Your task to perform on an android device: turn pop-ups off in chrome Image 0: 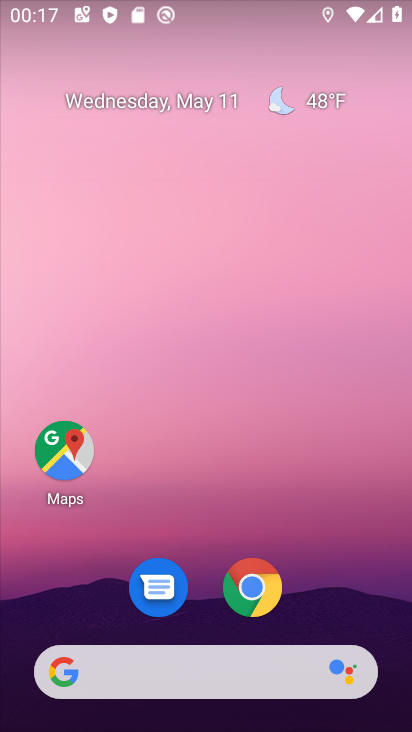
Step 0: click (279, 596)
Your task to perform on an android device: turn pop-ups off in chrome Image 1: 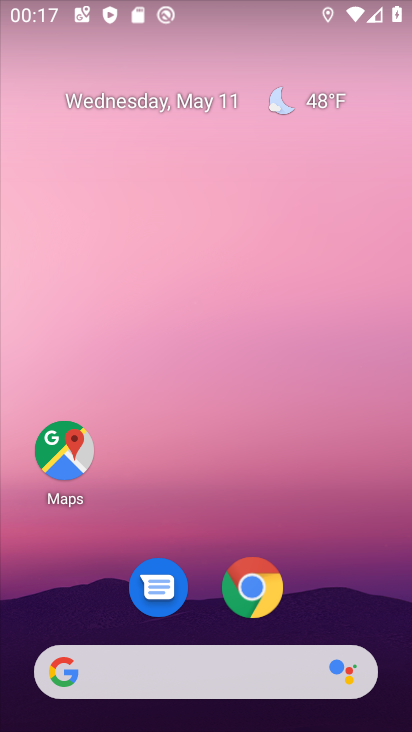
Step 1: click (279, 596)
Your task to perform on an android device: turn pop-ups off in chrome Image 2: 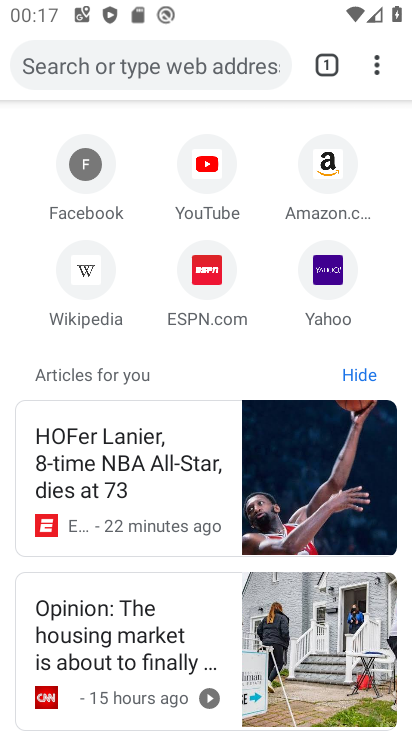
Step 2: click (362, 80)
Your task to perform on an android device: turn pop-ups off in chrome Image 3: 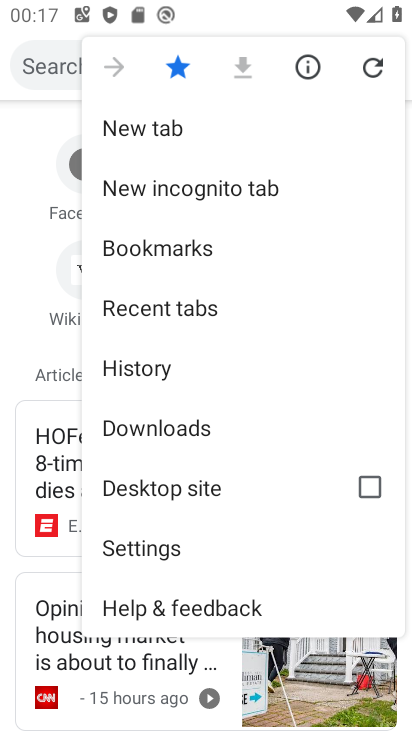
Step 3: click (201, 535)
Your task to perform on an android device: turn pop-ups off in chrome Image 4: 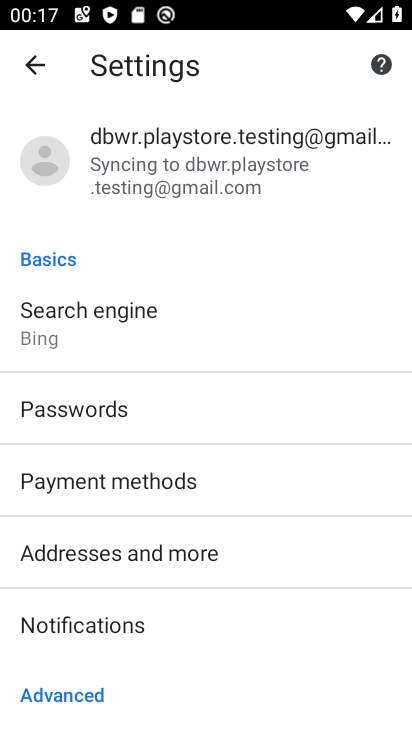
Step 4: drag from (266, 558) to (198, 273)
Your task to perform on an android device: turn pop-ups off in chrome Image 5: 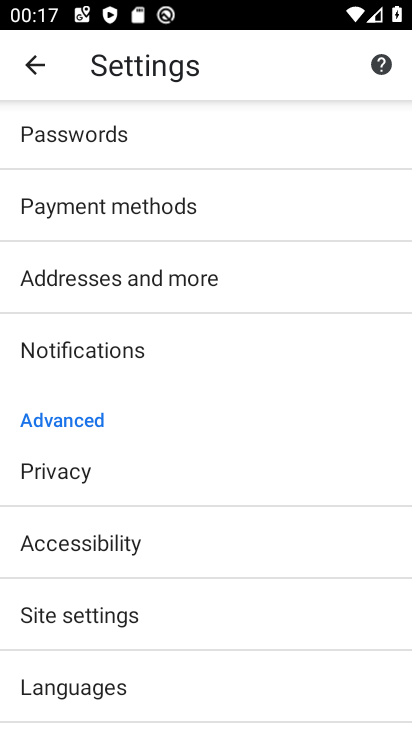
Step 5: click (148, 619)
Your task to perform on an android device: turn pop-ups off in chrome Image 6: 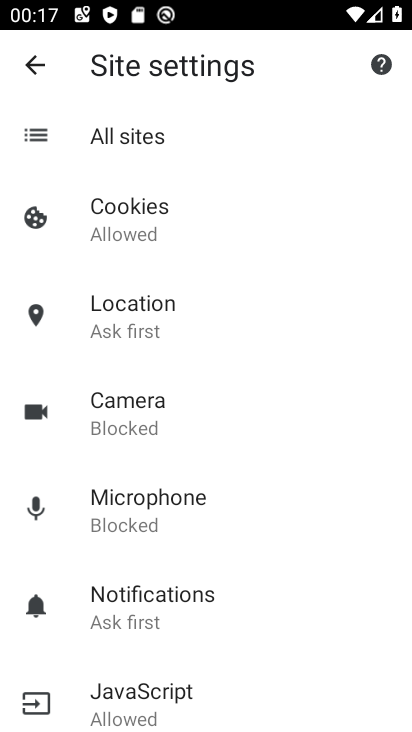
Step 6: drag from (235, 626) to (230, 197)
Your task to perform on an android device: turn pop-ups off in chrome Image 7: 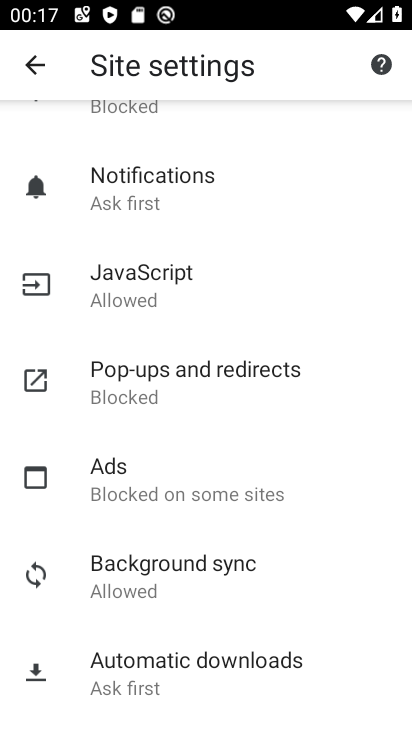
Step 7: click (169, 390)
Your task to perform on an android device: turn pop-ups off in chrome Image 8: 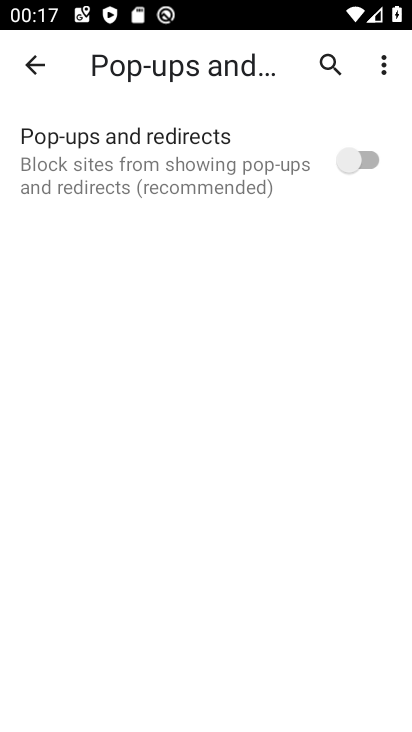
Step 8: task complete